Your task to perform on an android device: Open my contact list Image 0: 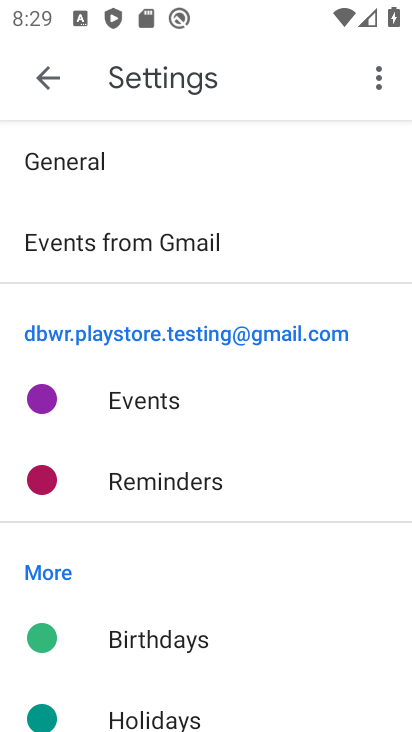
Step 0: press home button
Your task to perform on an android device: Open my contact list Image 1: 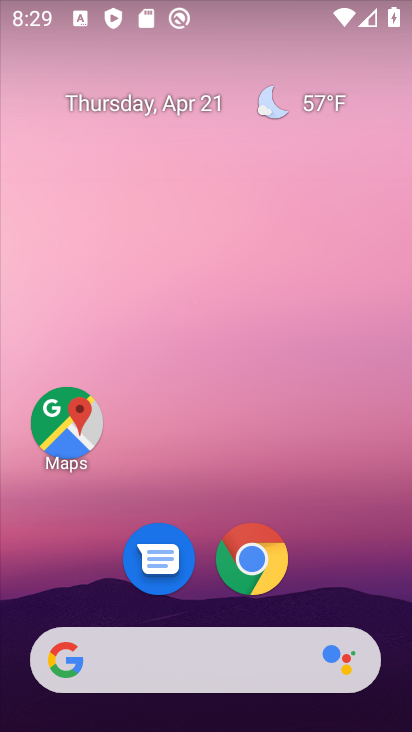
Step 1: drag from (215, 592) to (162, 101)
Your task to perform on an android device: Open my contact list Image 2: 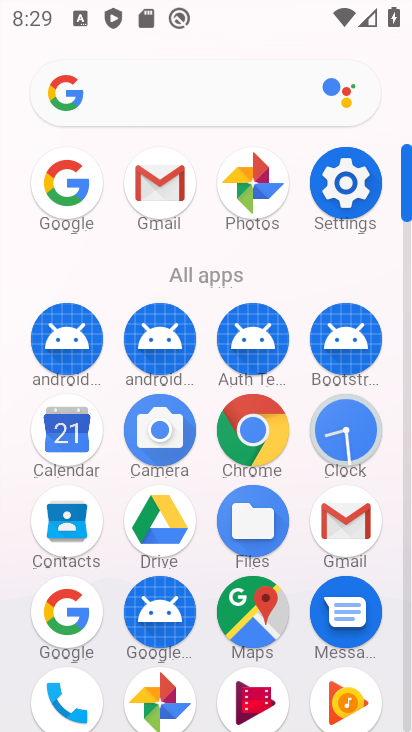
Step 2: click (80, 528)
Your task to perform on an android device: Open my contact list Image 3: 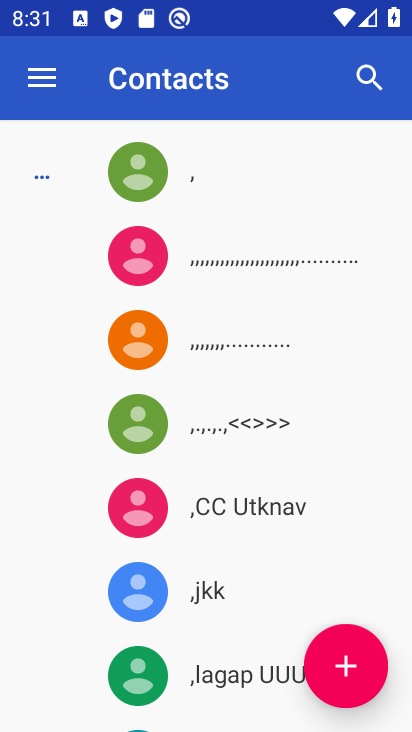
Step 3: task complete